Your task to perform on an android device: Search for flights from Buenos aires to Tokyo Image 0: 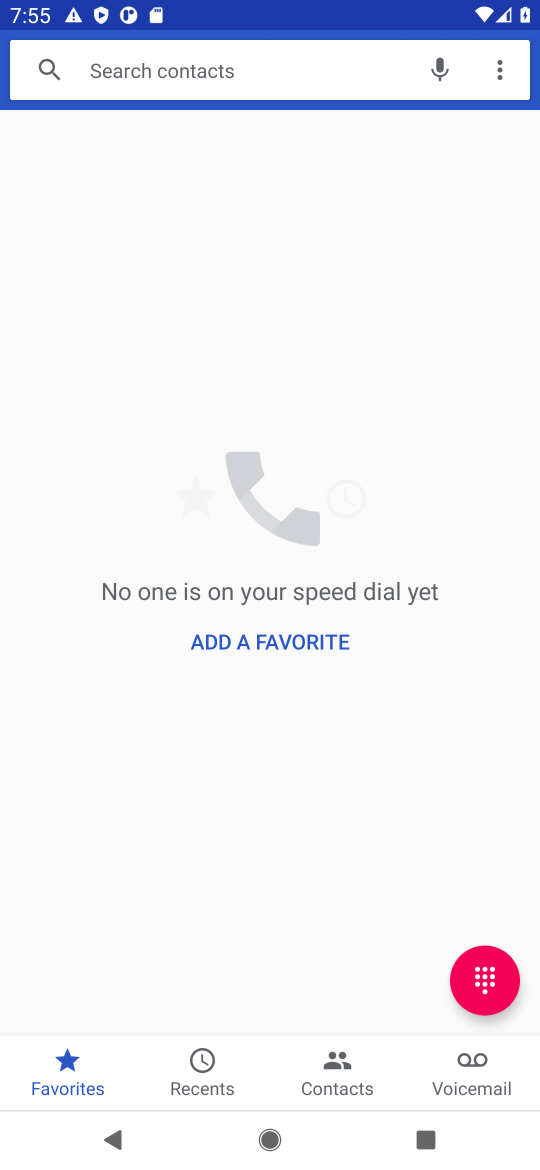
Step 0: press home button
Your task to perform on an android device: Search for flights from Buenos aires to Tokyo Image 1: 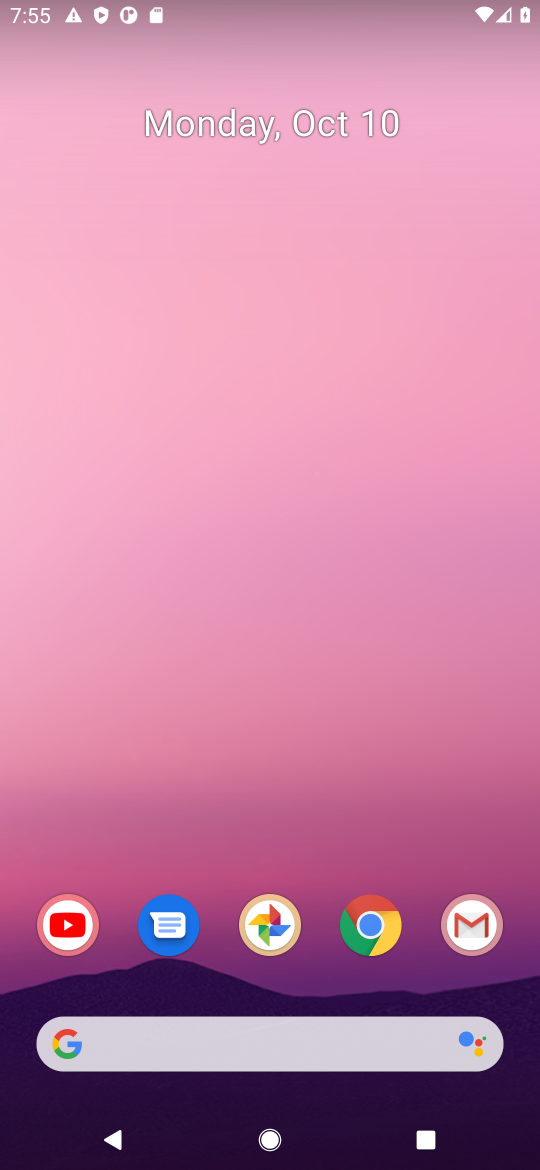
Step 1: drag from (306, 980) to (406, 42)
Your task to perform on an android device: Search for flights from Buenos aires to Tokyo Image 2: 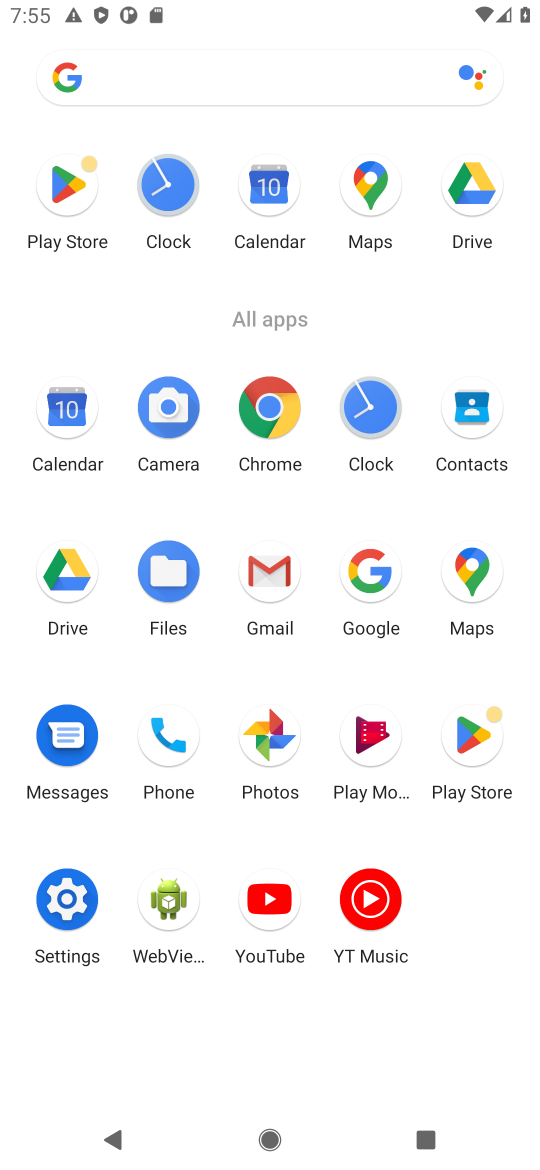
Step 2: click (269, 407)
Your task to perform on an android device: Search for flights from Buenos aires to Tokyo Image 3: 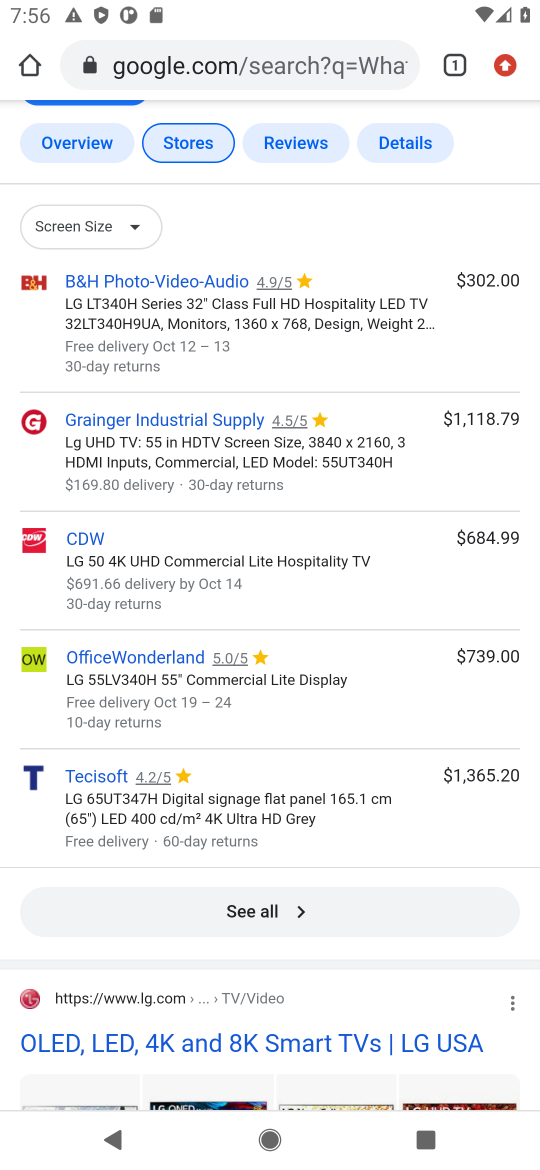
Step 3: click (280, 55)
Your task to perform on an android device: Search for flights from Buenos aires to Tokyo Image 4: 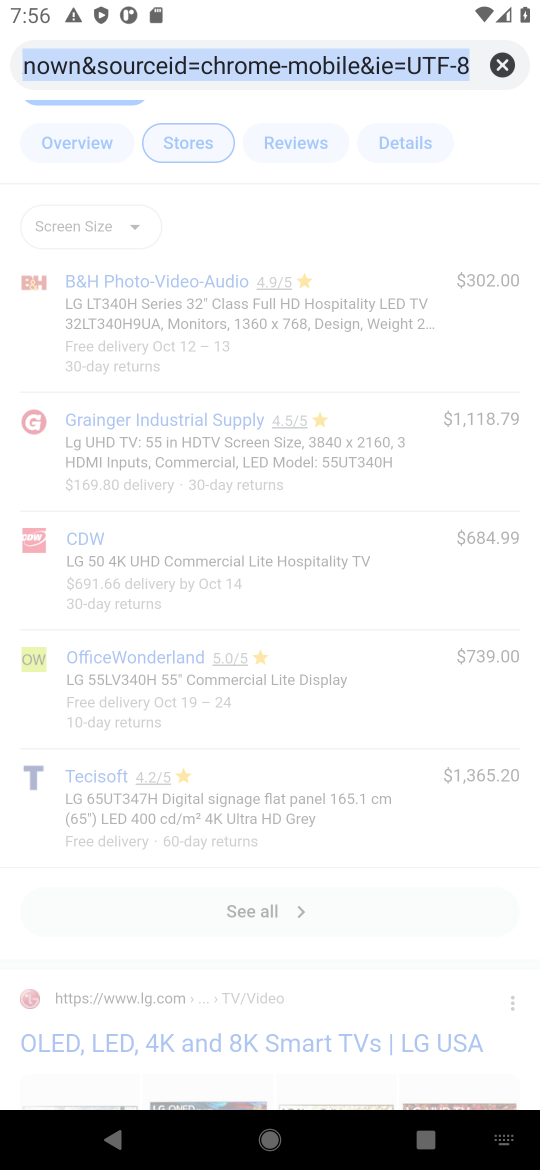
Step 4: type "flights from Buenos aires to Tokyo"
Your task to perform on an android device: Search for flights from Buenos aires to Tokyo Image 5: 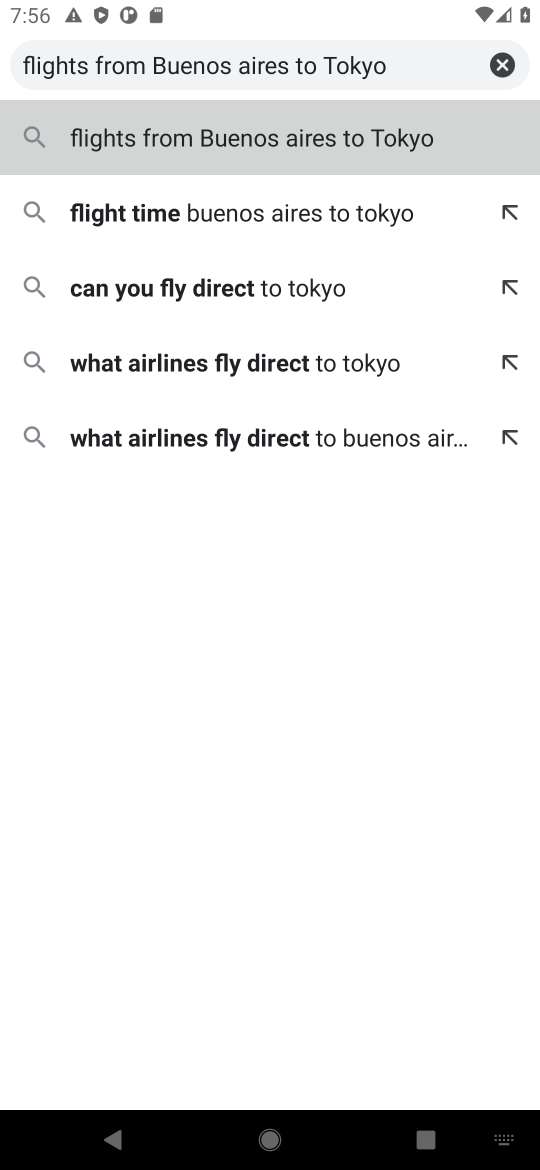
Step 5: press enter
Your task to perform on an android device: Search for flights from Buenos aires to Tokyo Image 6: 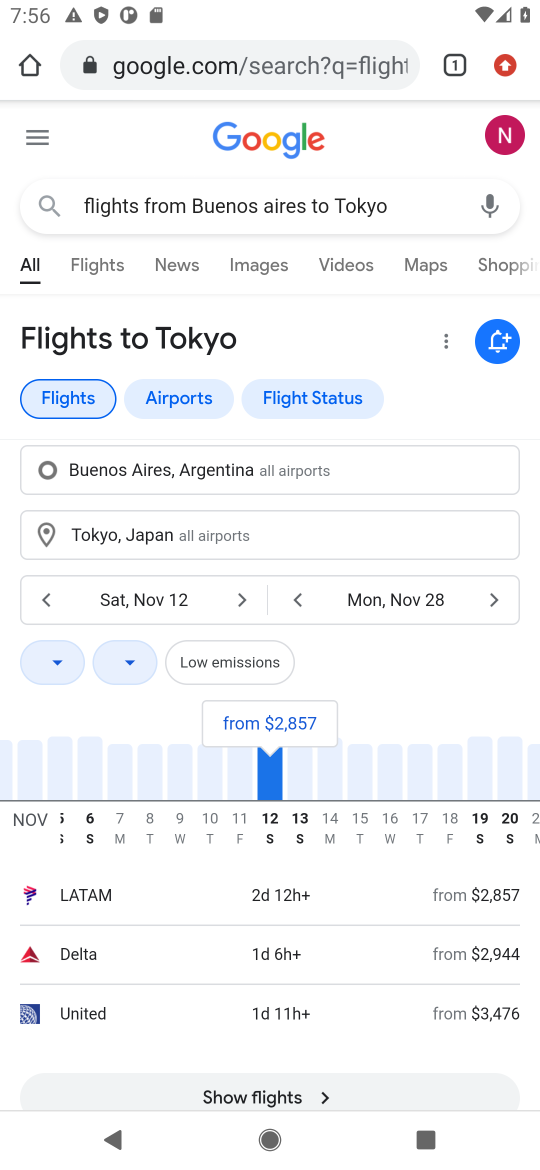
Step 6: press enter
Your task to perform on an android device: Search for flights from Buenos aires to Tokyo Image 7: 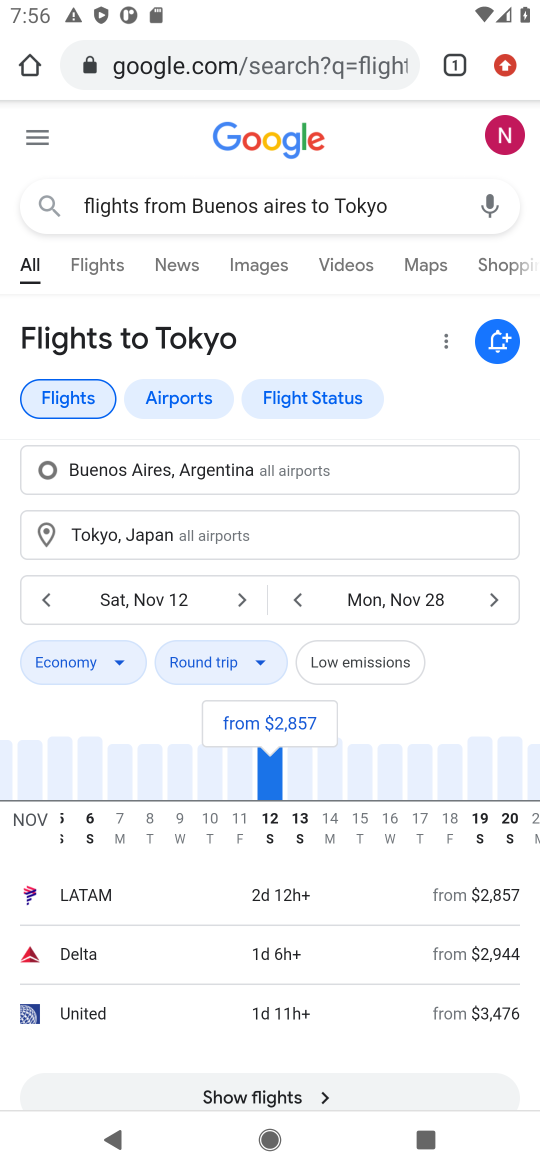
Step 7: task complete